Your task to perform on an android device: toggle data saver in the chrome app Image 0: 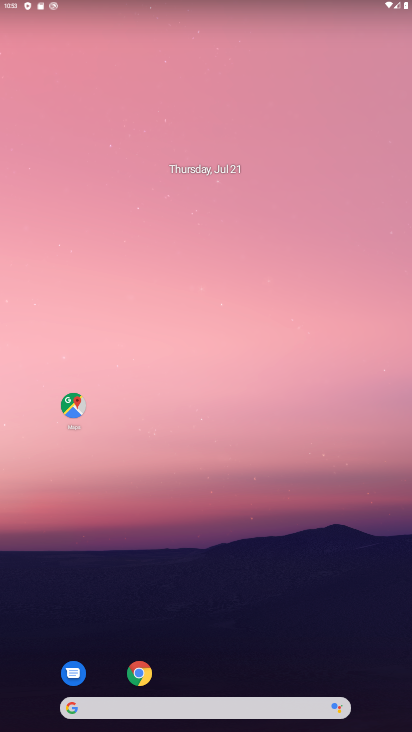
Step 0: click (139, 675)
Your task to perform on an android device: toggle data saver in the chrome app Image 1: 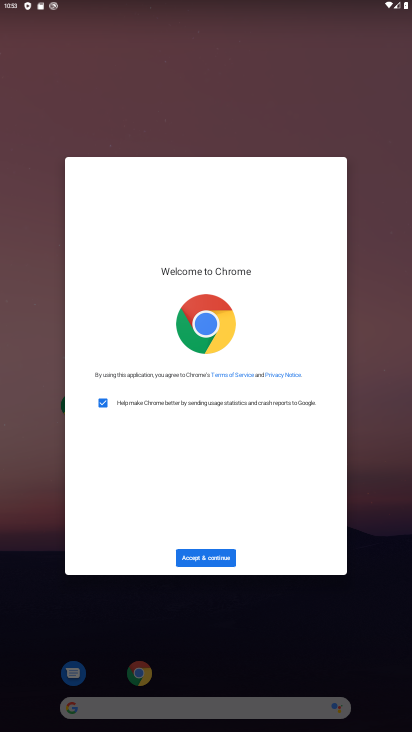
Step 1: click (222, 553)
Your task to perform on an android device: toggle data saver in the chrome app Image 2: 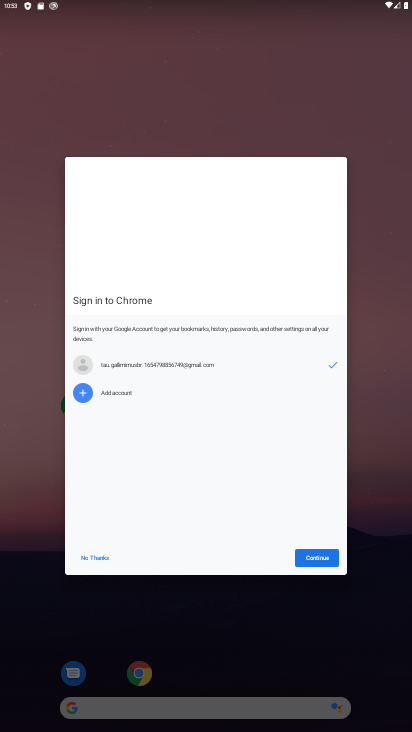
Step 2: click (297, 554)
Your task to perform on an android device: toggle data saver in the chrome app Image 3: 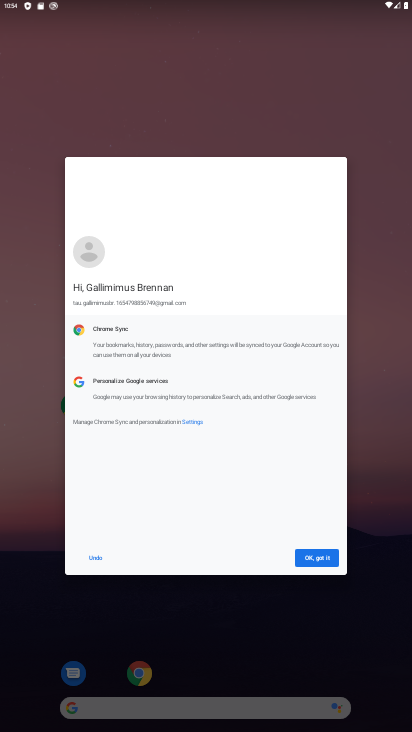
Step 3: click (307, 555)
Your task to perform on an android device: toggle data saver in the chrome app Image 4: 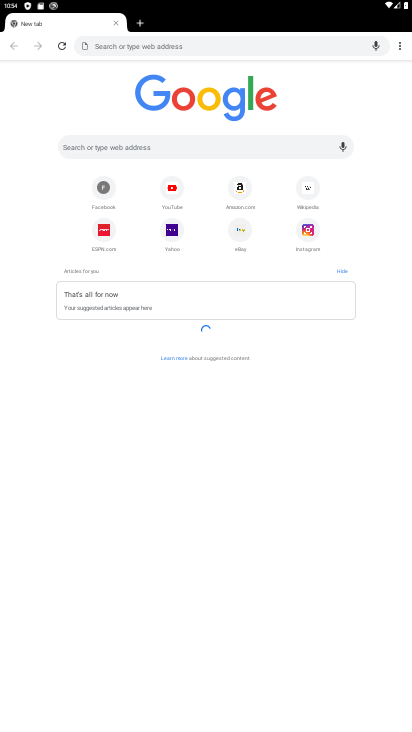
Step 4: click (399, 49)
Your task to perform on an android device: toggle data saver in the chrome app Image 5: 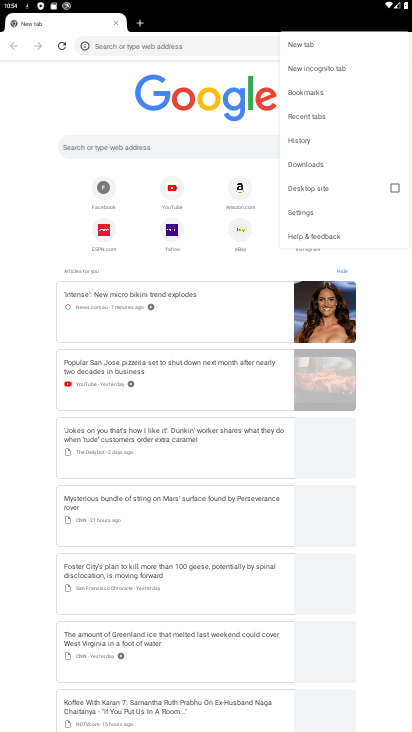
Step 5: click (321, 216)
Your task to perform on an android device: toggle data saver in the chrome app Image 6: 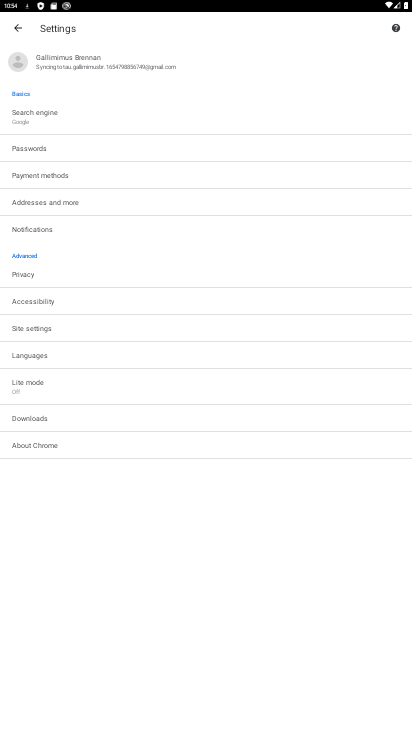
Step 6: click (187, 387)
Your task to perform on an android device: toggle data saver in the chrome app Image 7: 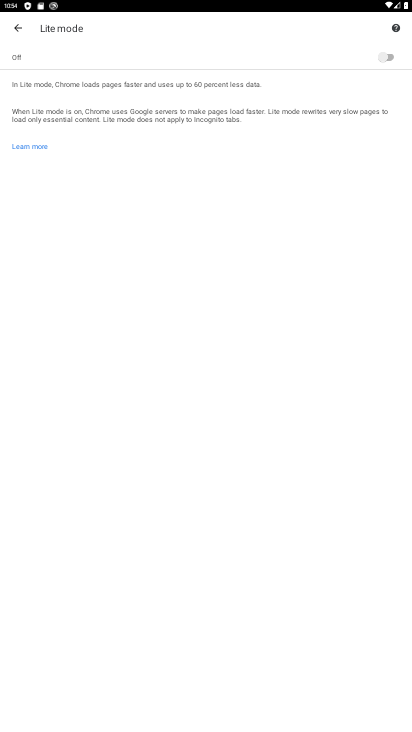
Step 7: click (391, 61)
Your task to perform on an android device: toggle data saver in the chrome app Image 8: 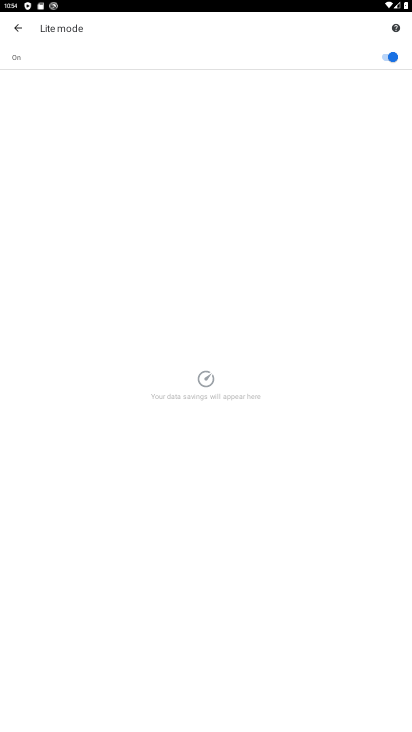
Step 8: task complete